Your task to perform on an android device: turn on the 12-hour format for clock Image 0: 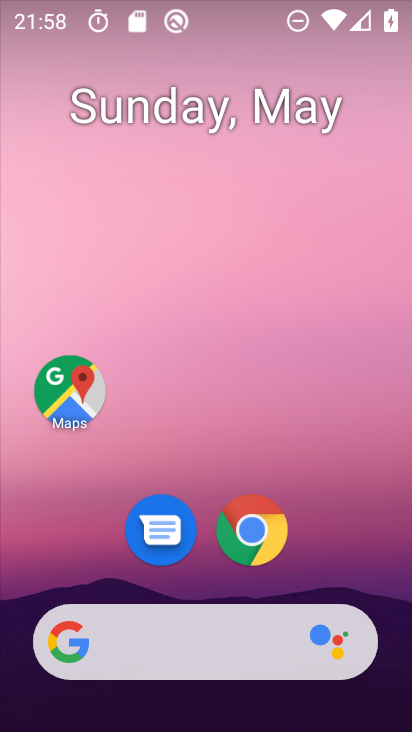
Step 0: drag from (279, 690) to (250, 86)
Your task to perform on an android device: turn on the 12-hour format for clock Image 1: 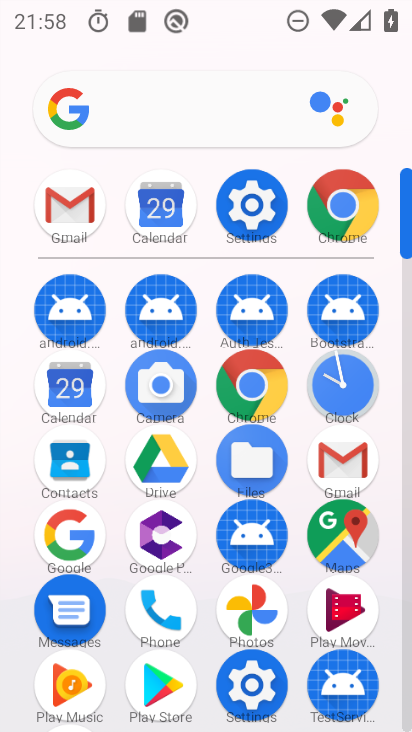
Step 1: click (352, 376)
Your task to perform on an android device: turn on the 12-hour format for clock Image 2: 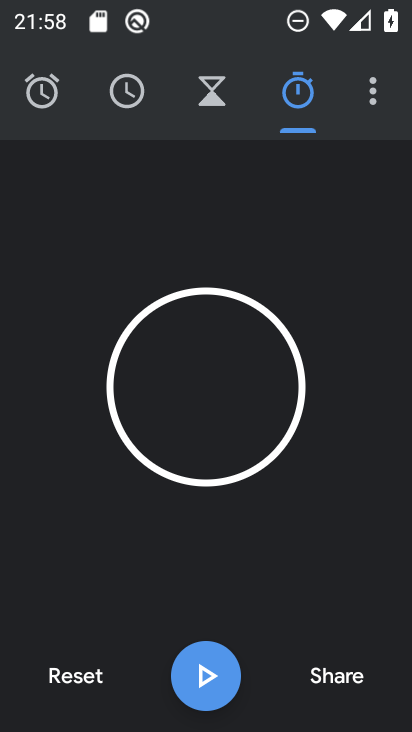
Step 2: click (359, 120)
Your task to perform on an android device: turn on the 12-hour format for clock Image 3: 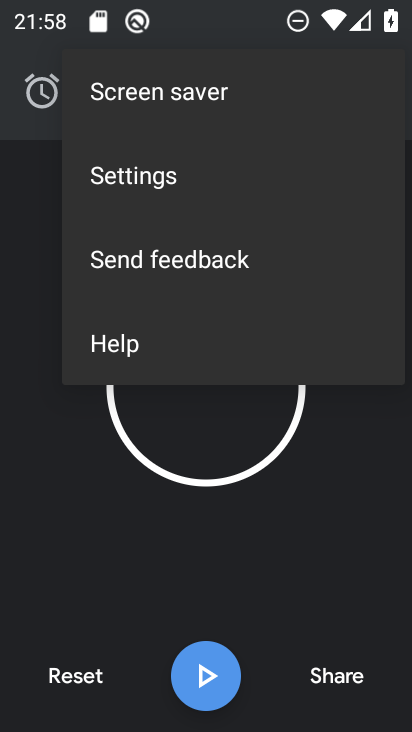
Step 3: click (163, 176)
Your task to perform on an android device: turn on the 12-hour format for clock Image 4: 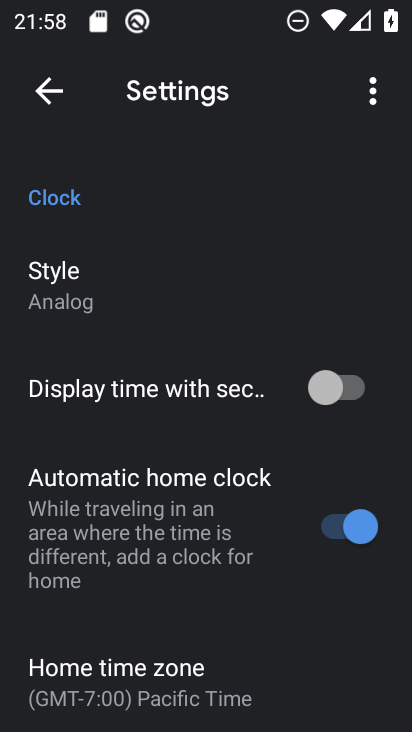
Step 4: drag from (178, 619) to (157, 325)
Your task to perform on an android device: turn on the 12-hour format for clock Image 5: 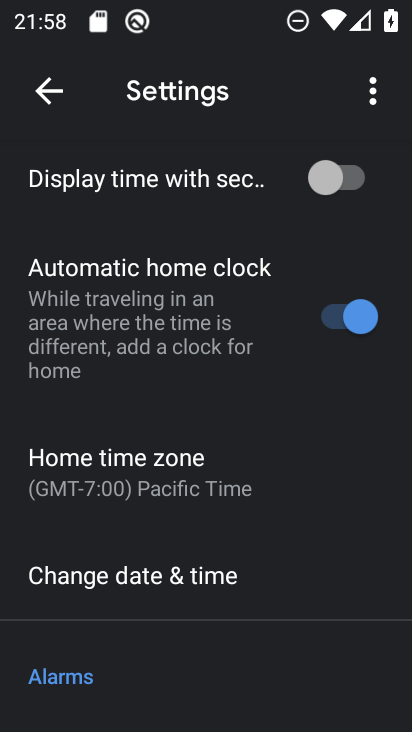
Step 5: click (138, 585)
Your task to perform on an android device: turn on the 12-hour format for clock Image 6: 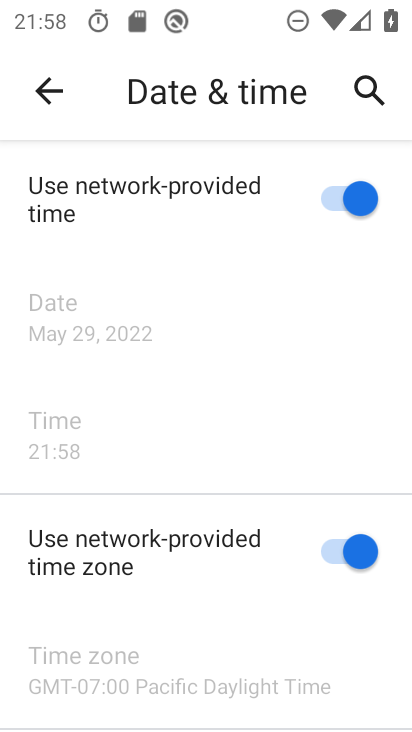
Step 6: drag from (205, 633) to (210, 257)
Your task to perform on an android device: turn on the 12-hour format for clock Image 7: 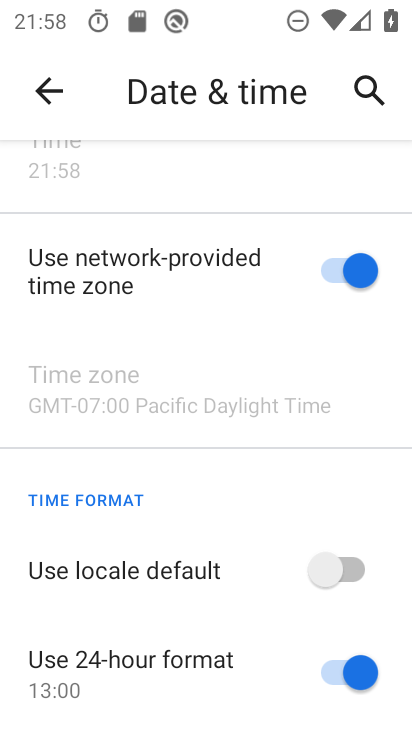
Step 7: click (357, 665)
Your task to perform on an android device: turn on the 12-hour format for clock Image 8: 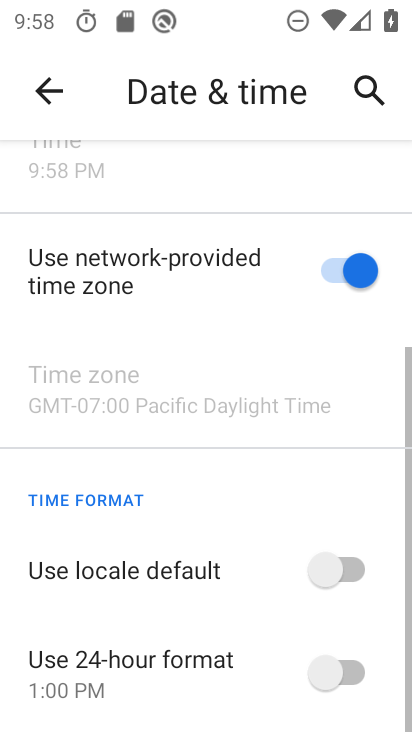
Step 8: task complete